Your task to perform on an android device: Turn off the flashlight Image 0: 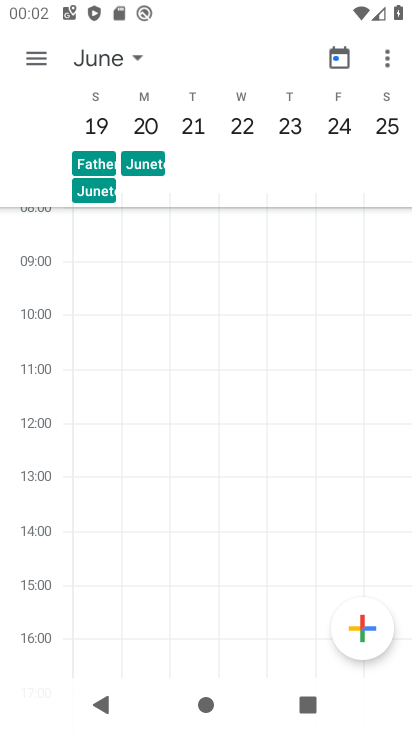
Step 0: press home button
Your task to perform on an android device: Turn off the flashlight Image 1: 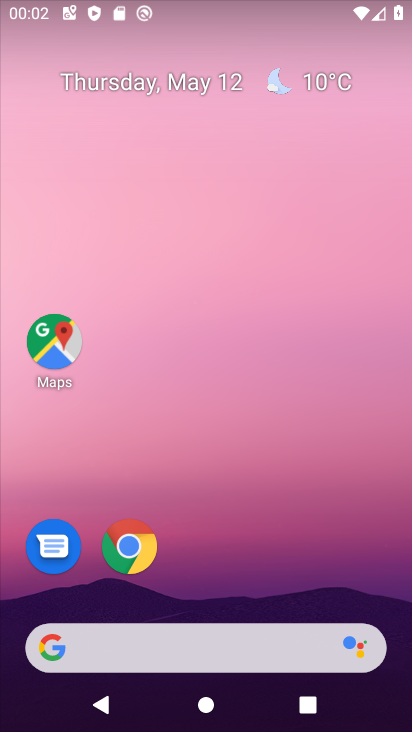
Step 1: drag from (144, 620) to (201, 166)
Your task to perform on an android device: Turn off the flashlight Image 2: 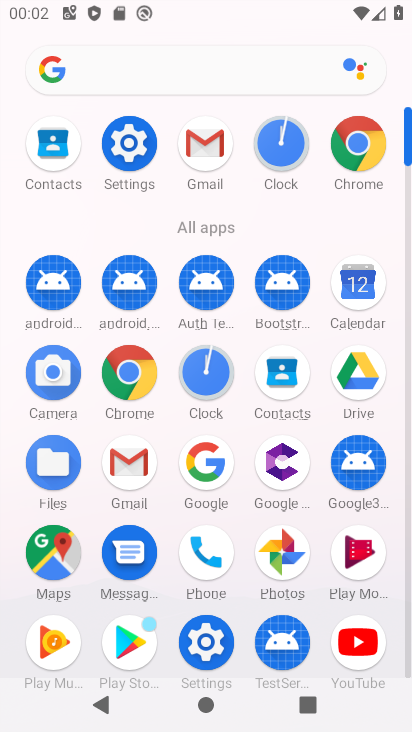
Step 2: click (205, 642)
Your task to perform on an android device: Turn off the flashlight Image 3: 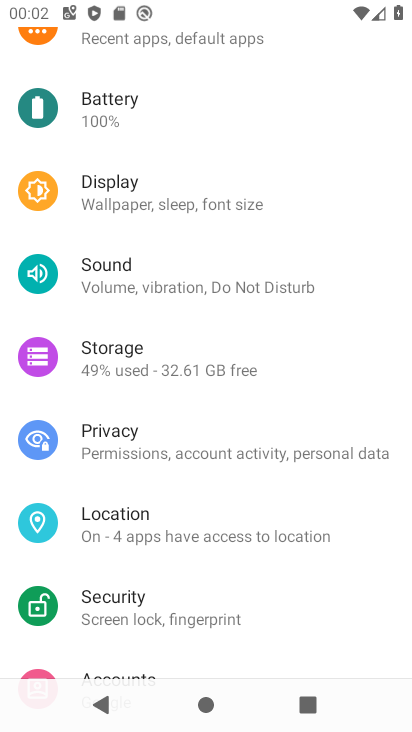
Step 3: click (224, 185)
Your task to perform on an android device: Turn off the flashlight Image 4: 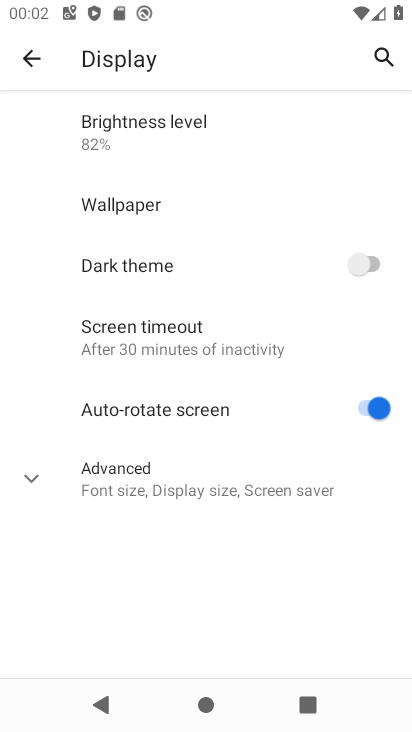
Step 4: task complete